Your task to perform on an android device: toggle data saver in the chrome app Image 0: 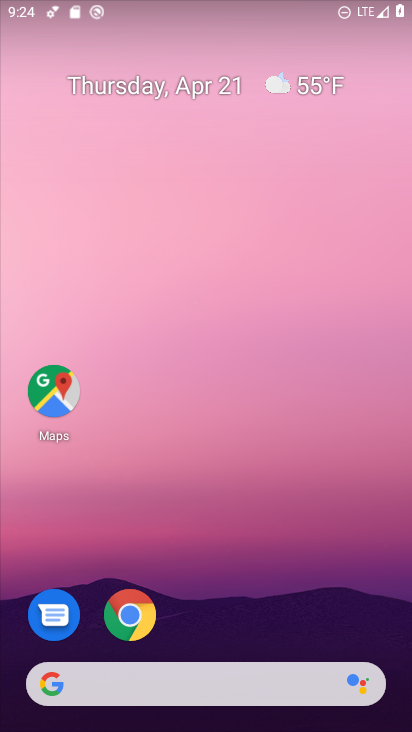
Step 0: drag from (216, 609) to (264, 55)
Your task to perform on an android device: toggle data saver in the chrome app Image 1: 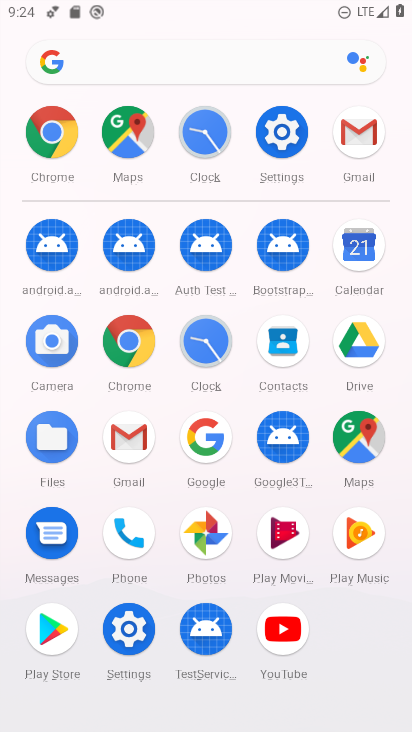
Step 1: click (46, 144)
Your task to perform on an android device: toggle data saver in the chrome app Image 2: 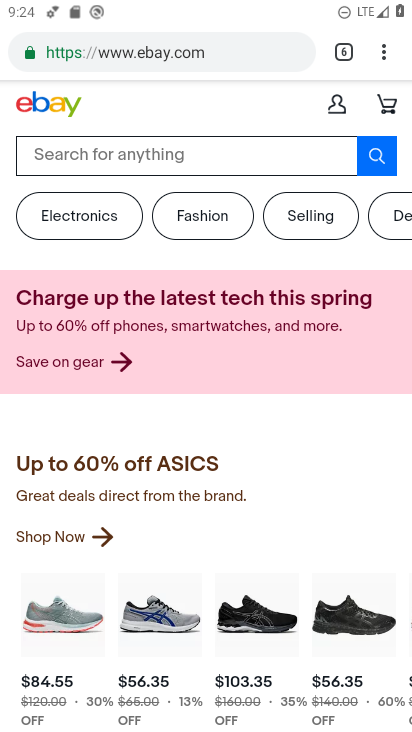
Step 2: drag from (390, 54) to (249, 576)
Your task to perform on an android device: toggle data saver in the chrome app Image 3: 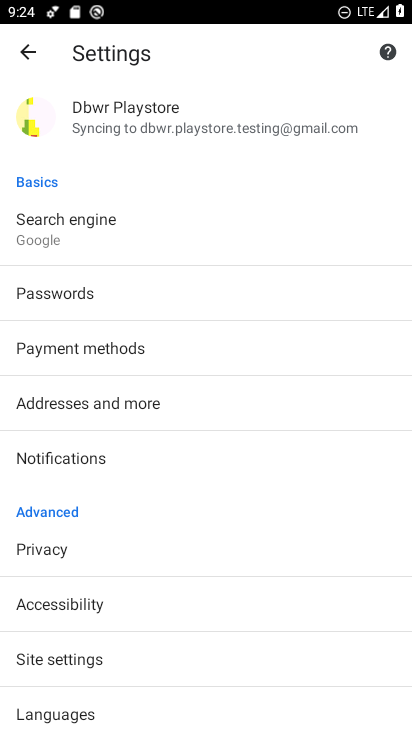
Step 3: drag from (164, 567) to (201, 202)
Your task to perform on an android device: toggle data saver in the chrome app Image 4: 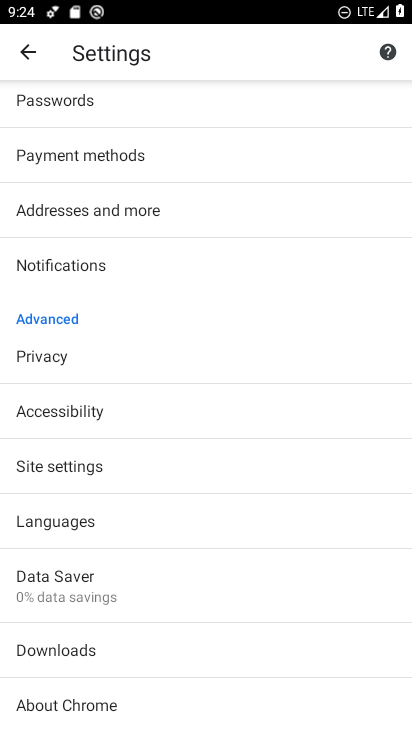
Step 4: click (98, 580)
Your task to perform on an android device: toggle data saver in the chrome app Image 5: 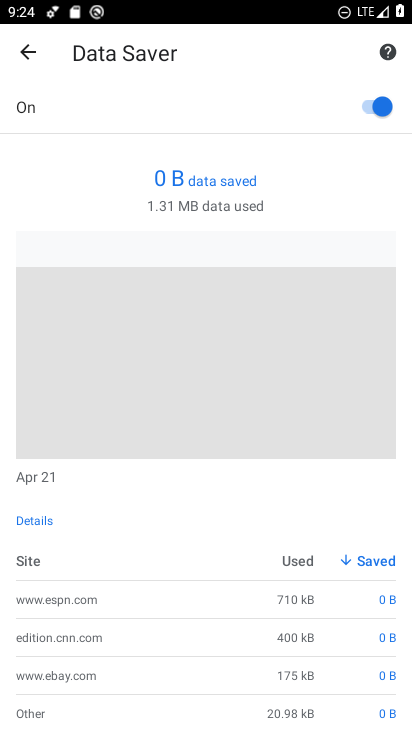
Step 5: drag from (127, 622) to (118, 183)
Your task to perform on an android device: toggle data saver in the chrome app Image 6: 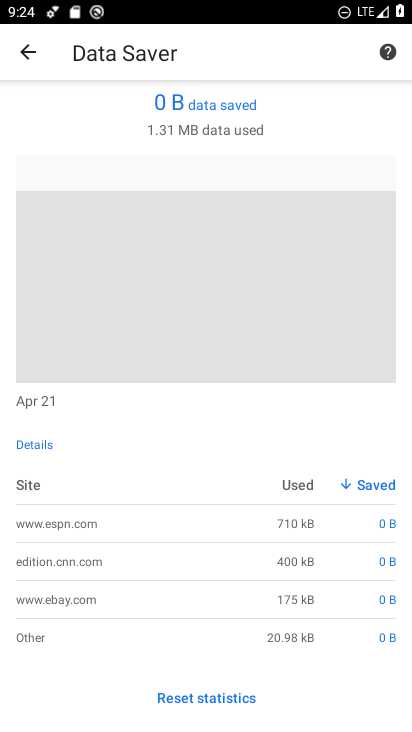
Step 6: drag from (267, 383) to (260, 630)
Your task to perform on an android device: toggle data saver in the chrome app Image 7: 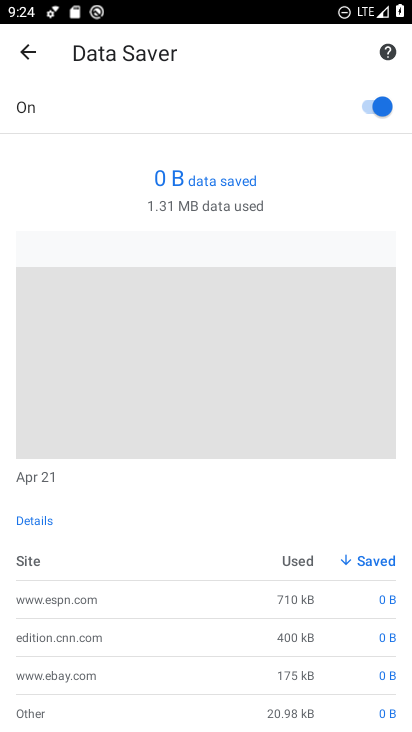
Step 7: click (367, 105)
Your task to perform on an android device: toggle data saver in the chrome app Image 8: 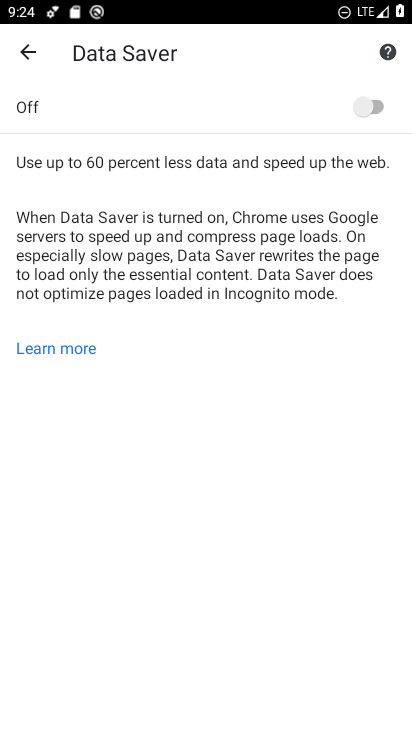
Step 8: task complete